Your task to perform on an android device: Go to settings Image 0: 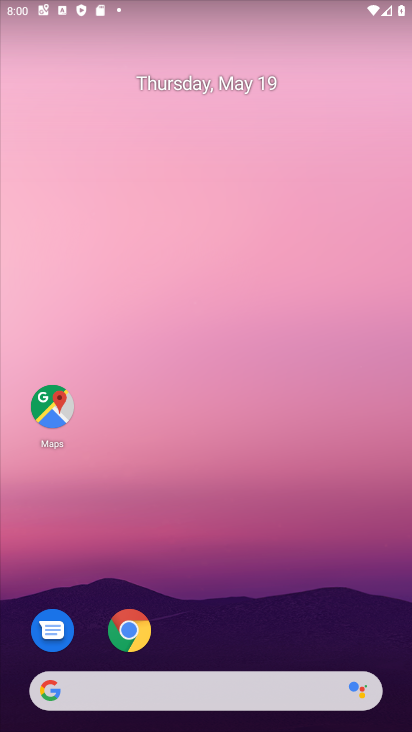
Step 0: drag from (368, 633) to (296, 131)
Your task to perform on an android device: Go to settings Image 1: 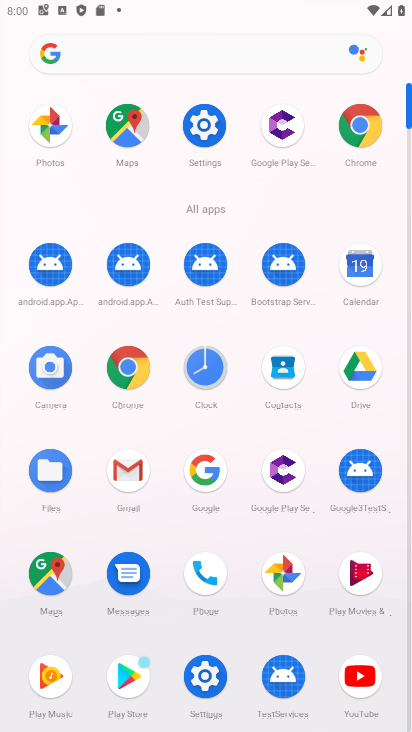
Step 1: click (410, 689)
Your task to perform on an android device: Go to settings Image 2: 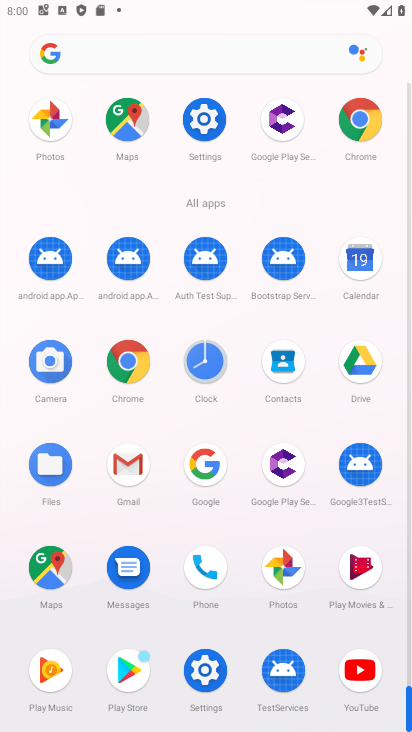
Step 2: click (205, 669)
Your task to perform on an android device: Go to settings Image 3: 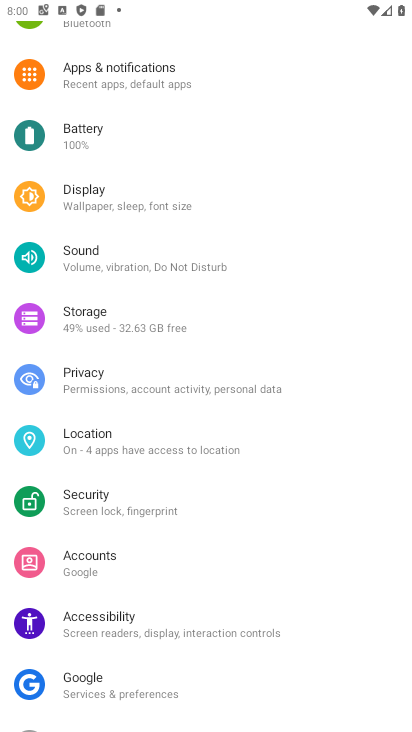
Step 3: task complete